Your task to perform on an android device: Open network settings Image 0: 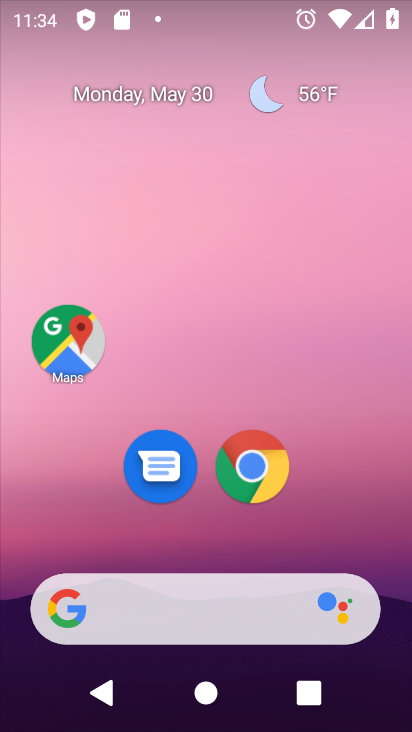
Step 0: drag from (255, 593) to (237, 24)
Your task to perform on an android device: Open network settings Image 1: 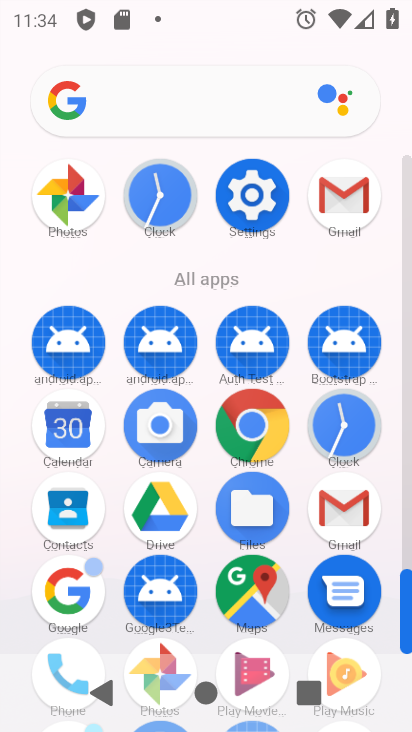
Step 1: click (262, 185)
Your task to perform on an android device: Open network settings Image 2: 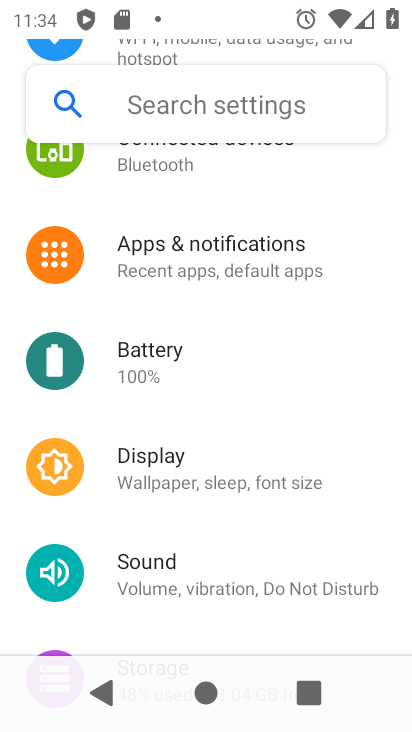
Step 2: drag from (203, 229) to (218, 711)
Your task to perform on an android device: Open network settings Image 3: 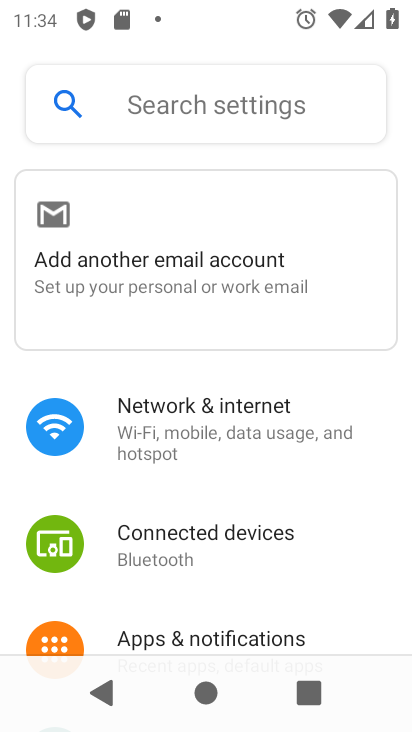
Step 3: click (182, 419)
Your task to perform on an android device: Open network settings Image 4: 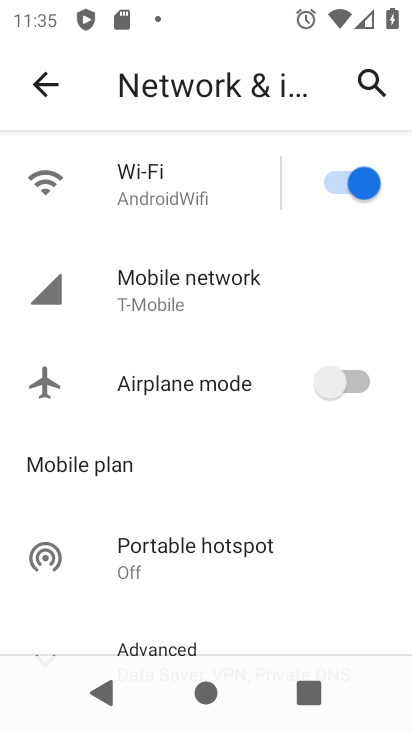
Step 4: task complete